Your task to perform on an android device: change your default location settings in chrome Image 0: 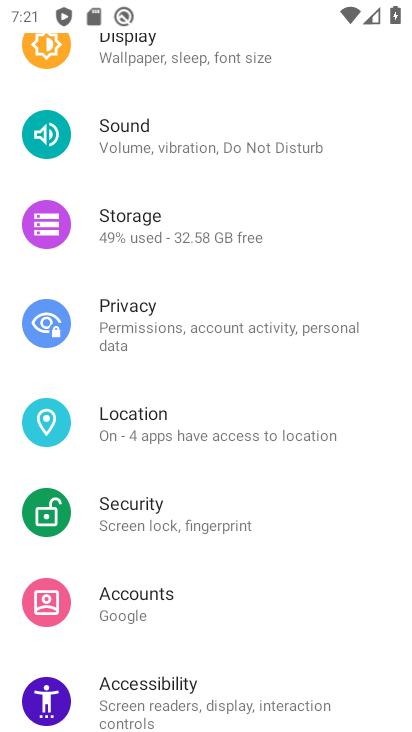
Step 0: press home button
Your task to perform on an android device: change your default location settings in chrome Image 1: 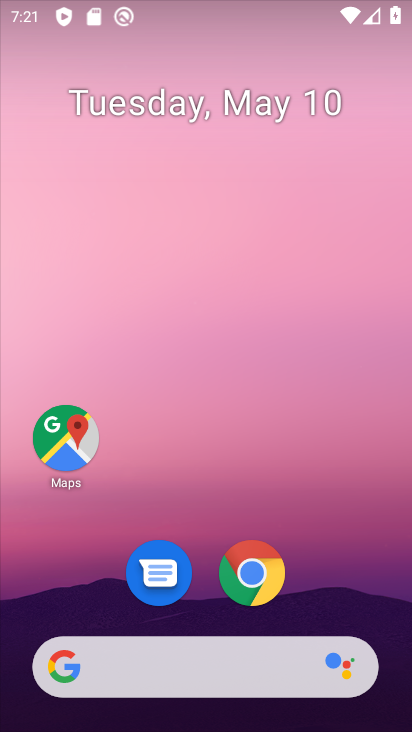
Step 1: drag from (379, 592) to (351, 125)
Your task to perform on an android device: change your default location settings in chrome Image 2: 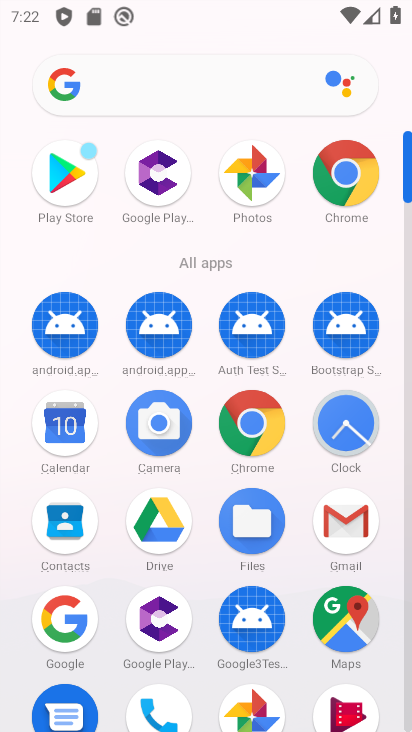
Step 2: click (250, 413)
Your task to perform on an android device: change your default location settings in chrome Image 3: 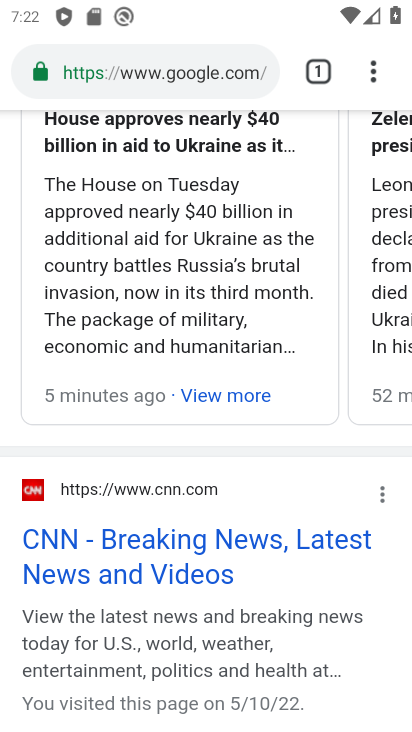
Step 3: click (191, 75)
Your task to perform on an android device: change your default location settings in chrome Image 4: 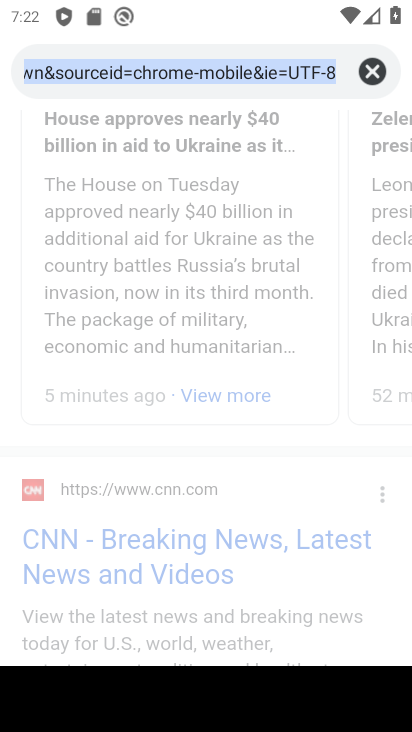
Step 4: click (374, 77)
Your task to perform on an android device: change your default location settings in chrome Image 5: 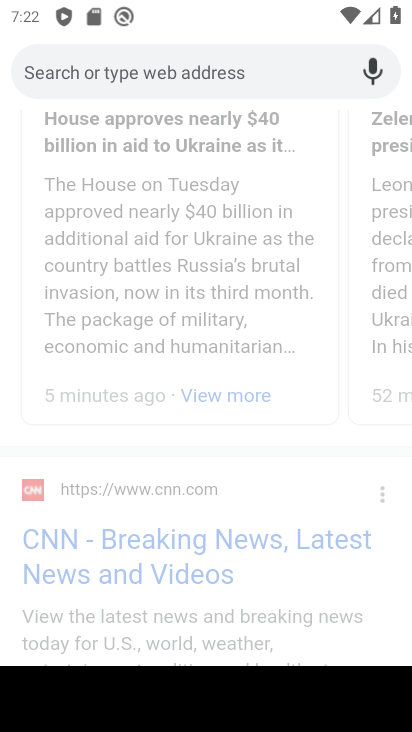
Step 5: press back button
Your task to perform on an android device: change your default location settings in chrome Image 6: 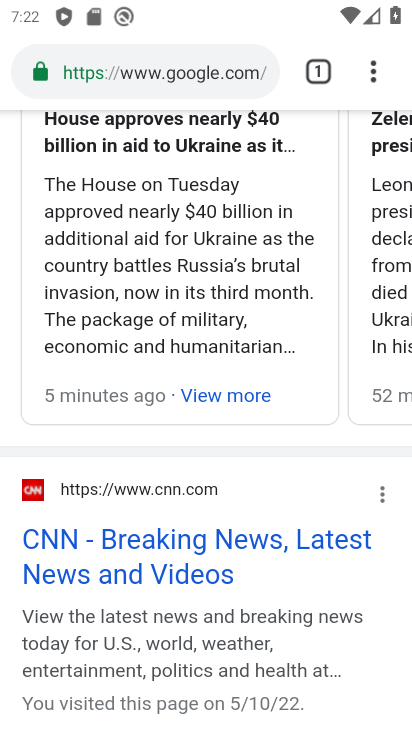
Step 6: drag from (378, 85) to (240, 562)
Your task to perform on an android device: change your default location settings in chrome Image 7: 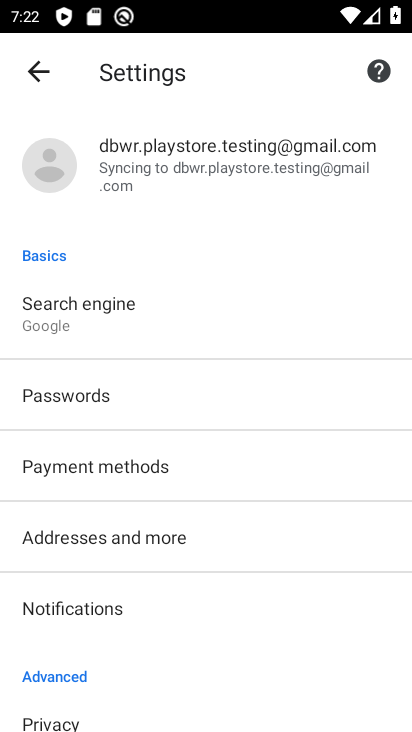
Step 7: drag from (230, 661) to (246, 311)
Your task to perform on an android device: change your default location settings in chrome Image 8: 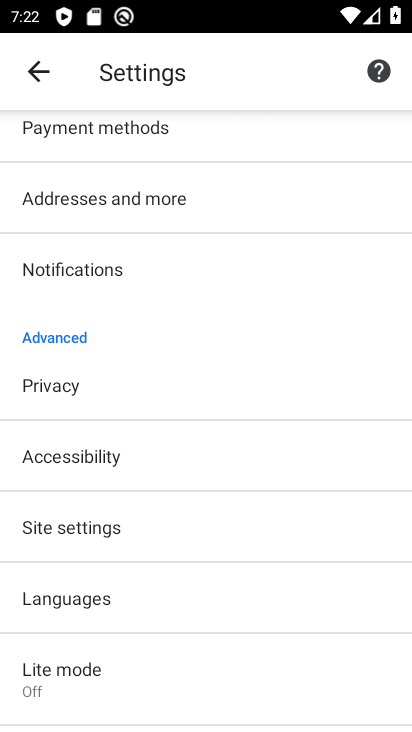
Step 8: drag from (219, 639) to (239, 316)
Your task to perform on an android device: change your default location settings in chrome Image 9: 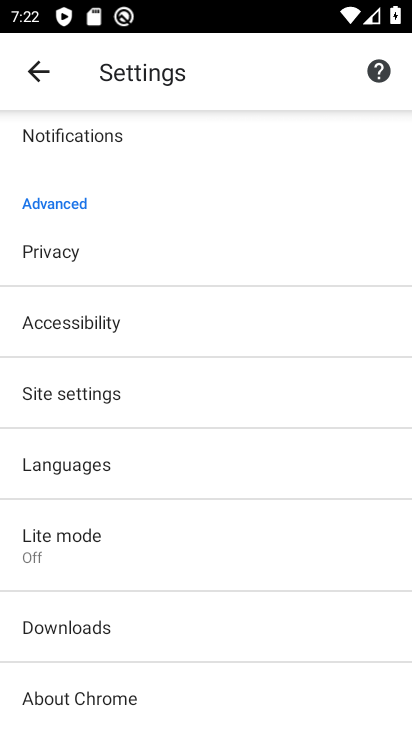
Step 9: click (120, 399)
Your task to perform on an android device: change your default location settings in chrome Image 10: 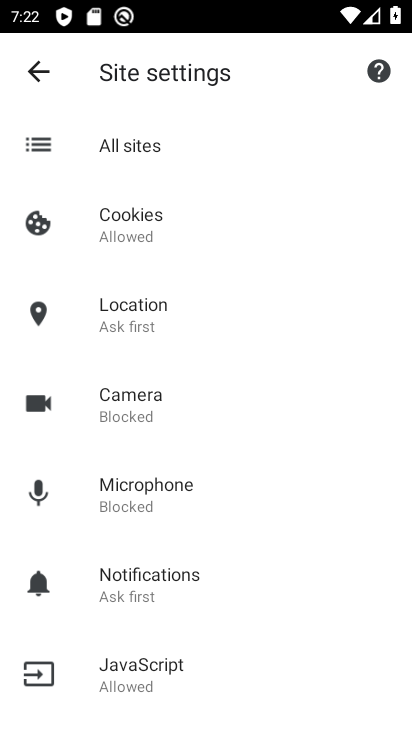
Step 10: click (140, 283)
Your task to perform on an android device: change your default location settings in chrome Image 11: 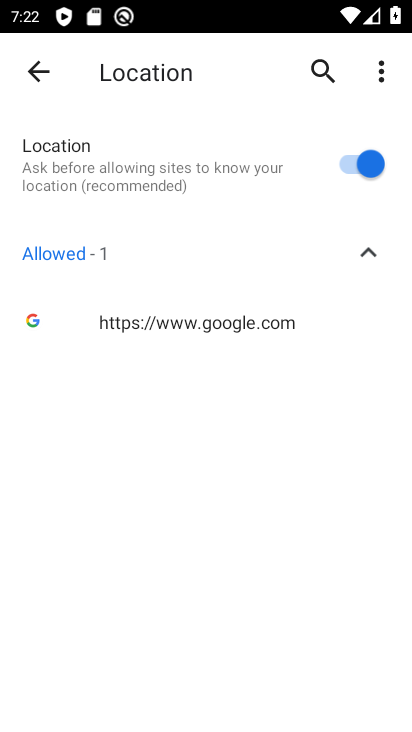
Step 11: click (354, 170)
Your task to perform on an android device: change your default location settings in chrome Image 12: 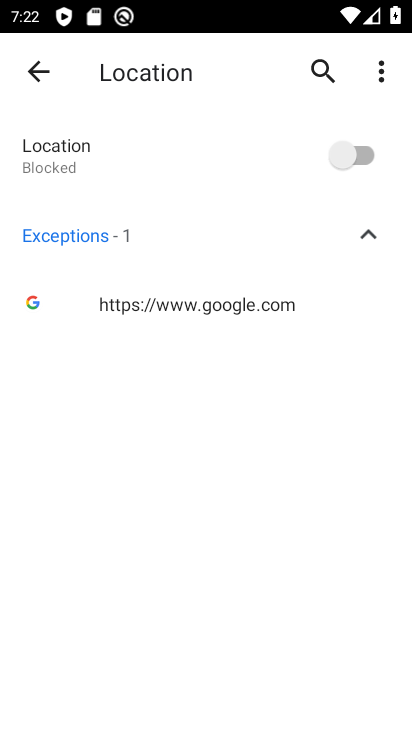
Step 12: task complete